Your task to perform on an android device: Search for pizza restaurants on Maps Image 0: 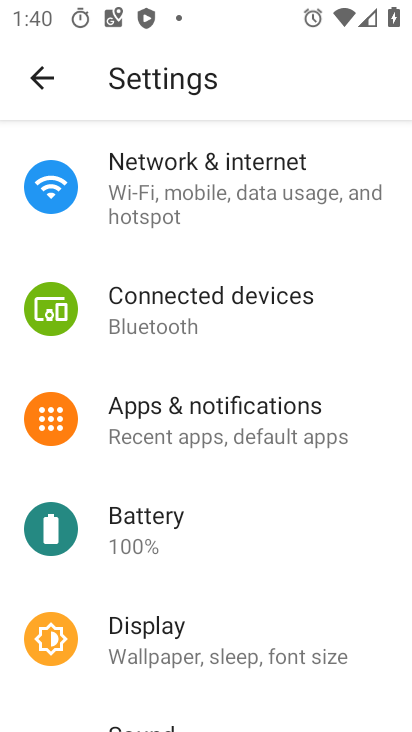
Step 0: press back button
Your task to perform on an android device: Search for pizza restaurants on Maps Image 1: 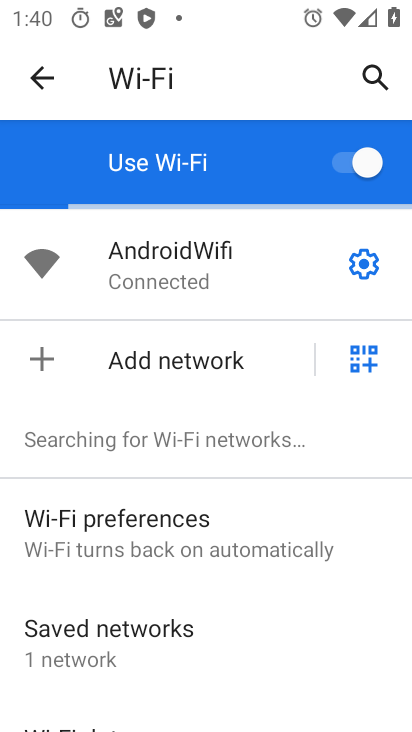
Step 1: press back button
Your task to perform on an android device: Search for pizza restaurants on Maps Image 2: 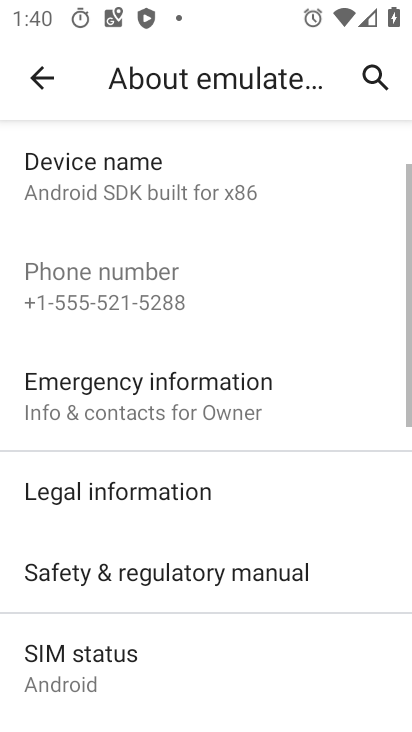
Step 2: press back button
Your task to perform on an android device: Search for pizza restaurants on Maps Image 3: 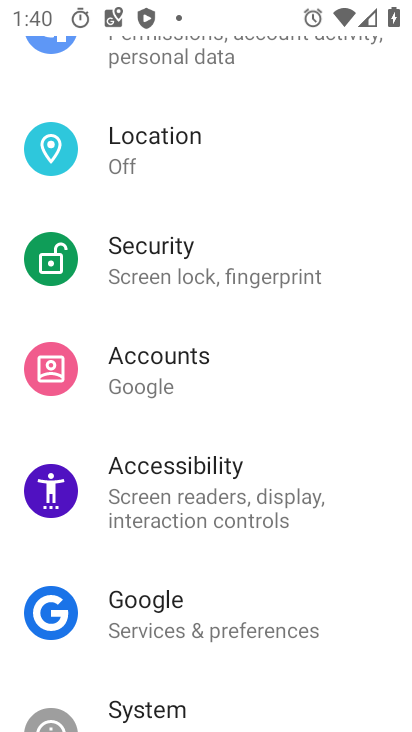
Step 3: press back button
Your task to perform on an android device: Search for pizza restaurants on Maps Image 4: 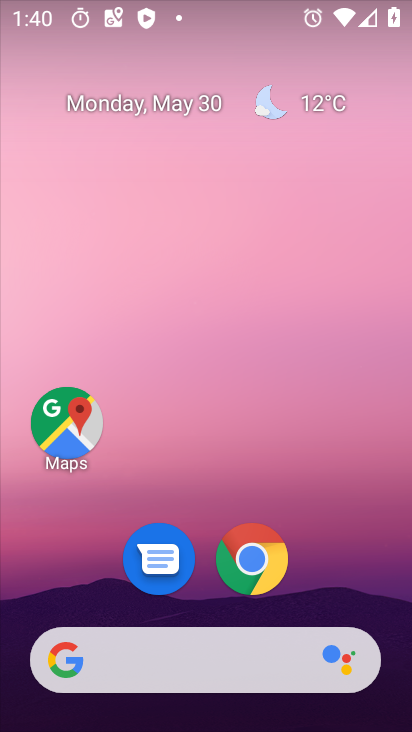
Step 4: click (56, 411)
Your task to perform on an android device: Search for pizza restaurants on Maps Image 5: 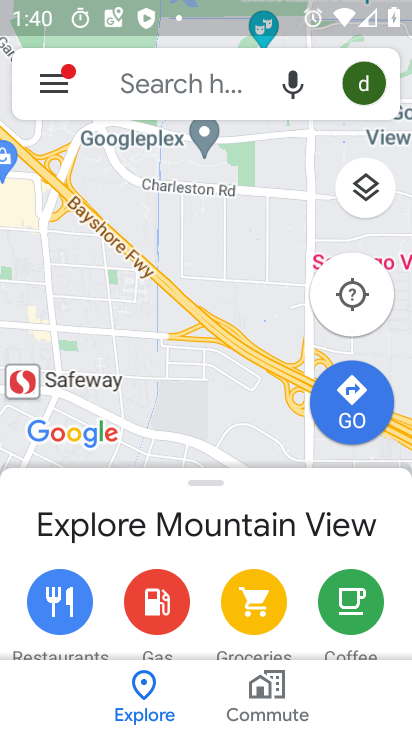
Step 5: click (166, 92)
Your task to perform on an android device: Search for pizza restaurants on Maps Image 6: 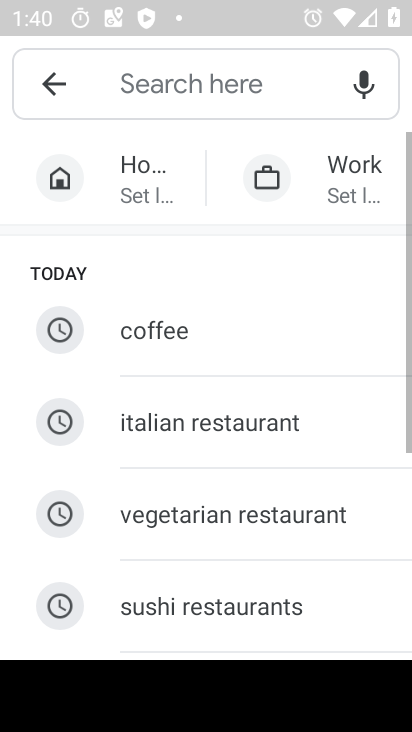
Step 6: drag from (193, 587) to (304, 63)
Your task to perform on an android device: Search for pizza restaurants on Maps Image 7: 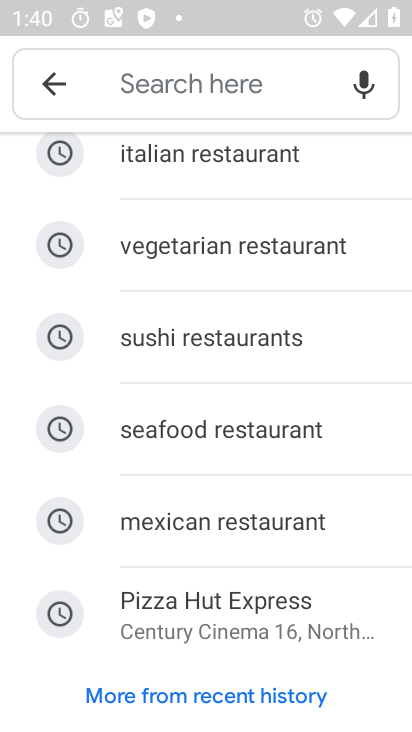
Step 7: drag from (194, 317) to (214, 680)
Your task to perform on an android device: Search for pizza restaurants on Maps Image 8: 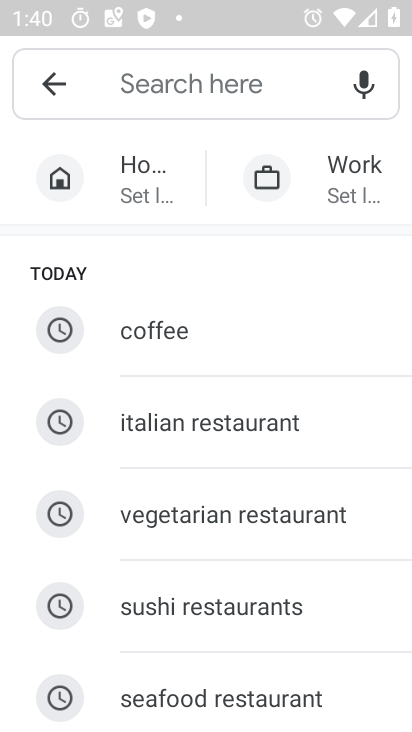
Step 8: click (170, 78)
Your task to perform on an android device: Search for pizza restaurants on Maps Image 9: 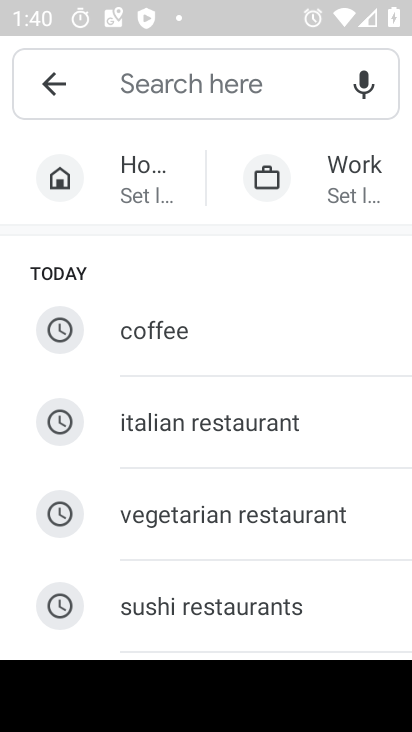
Step 9: type "pizza restrunts"
Your task to perform on an android device: Search for pizza restaurants on Maps Image 10: 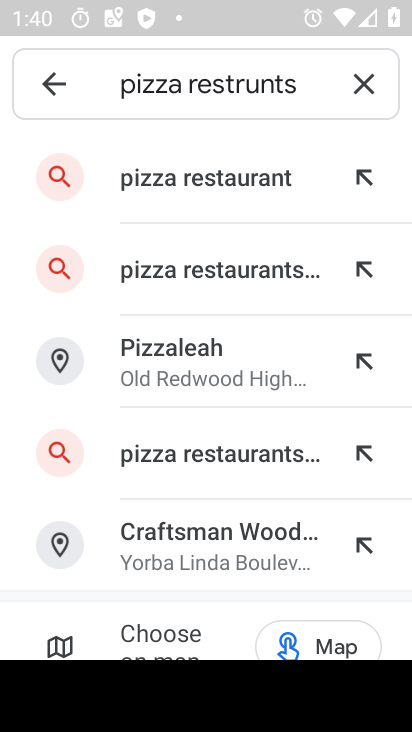
Step 10: click (189, 173)
Your task to perform on an android device: Search for pizza restaurants on Maps Image 11: 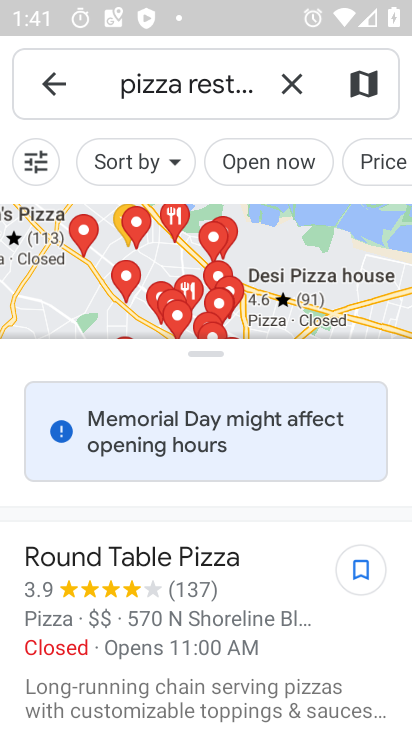
Step 11: task complete